Your task to perform on an android device: Go to notification settings Image 0: 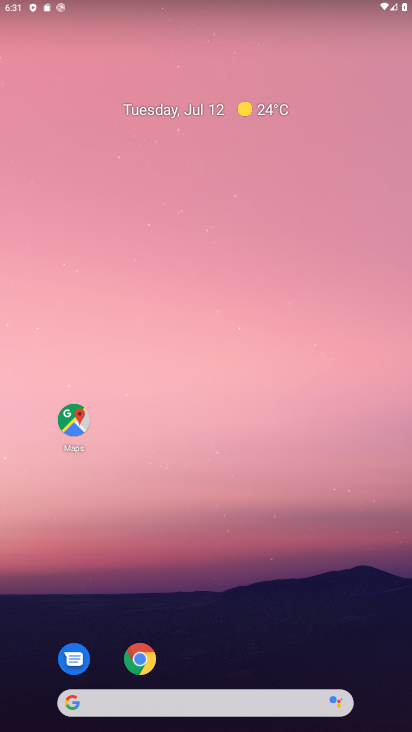
Step 0: drag from (213, 582) to (221, 2)
Your task to perform on an android device: Go to notification settings Image 1: 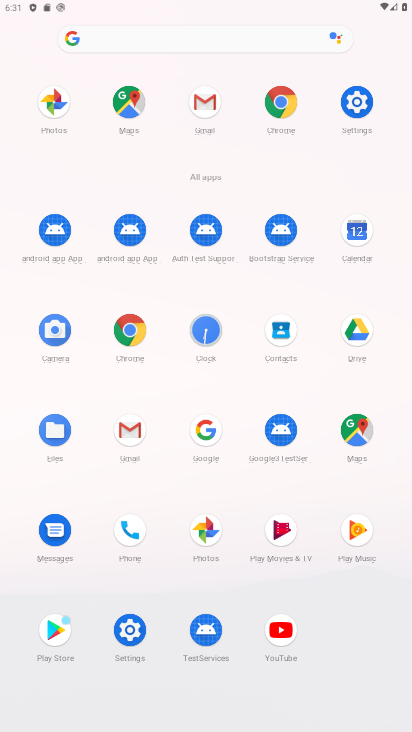
Step 1: click (353, 98)
Your task to perform on an android device: Go to notification settings Image 2: 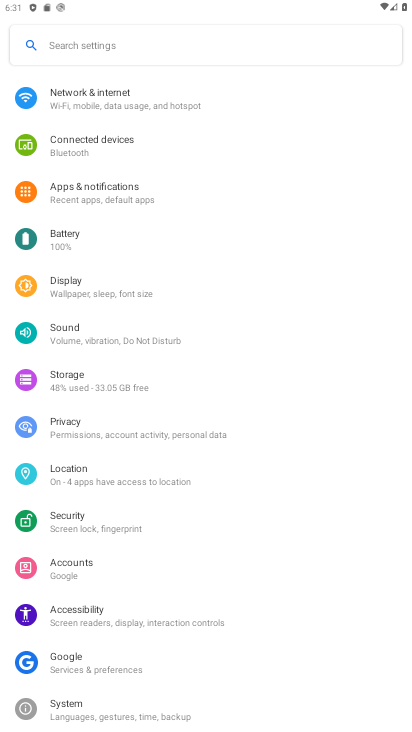
Step 2: click (98, 184)
Your task to perform on an android device: Go to notification settings Image 3: 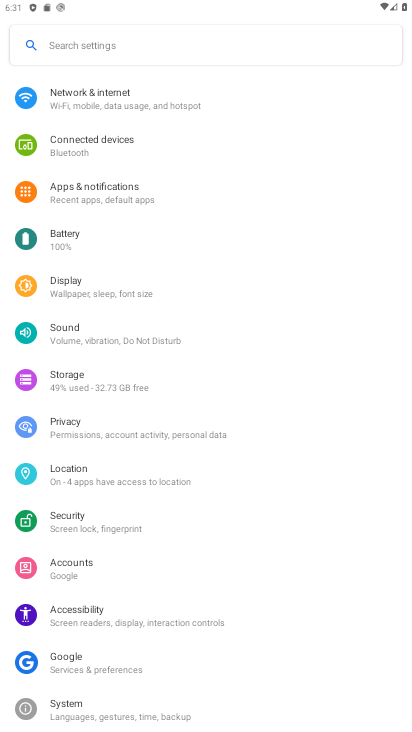
Step 3: click (139, 186)
Your task to perform on an android device: Go to notification settings Image 4: 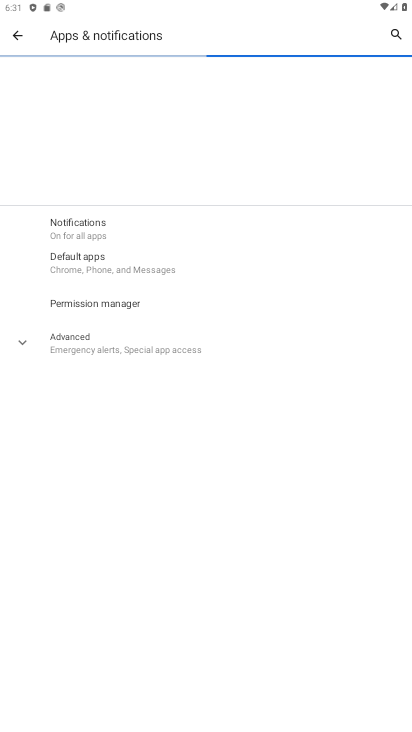
Step 4: click (87, 229)
Your task to perform on an android device: Go to notification settings Image 5: 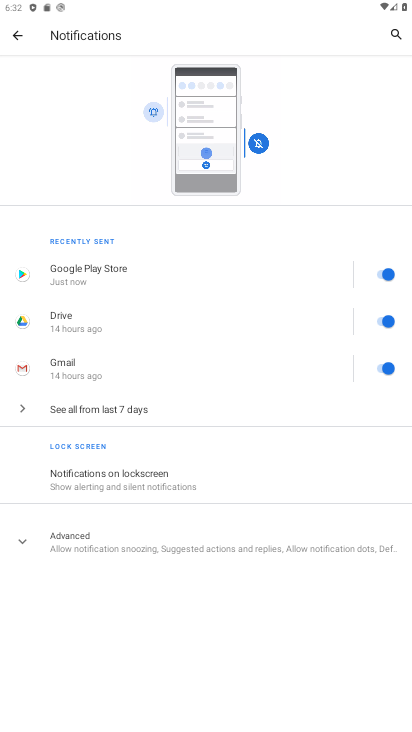
Step 5: task complete